Your task to perform on an android device: Do I have any events this weekend? Image 0: 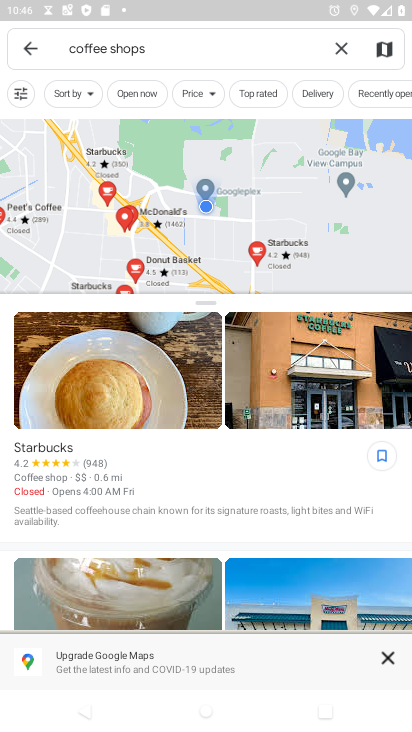
Step 0: press back button
Your task to perform on an android device: Do I have any events this weekend? Image 1: 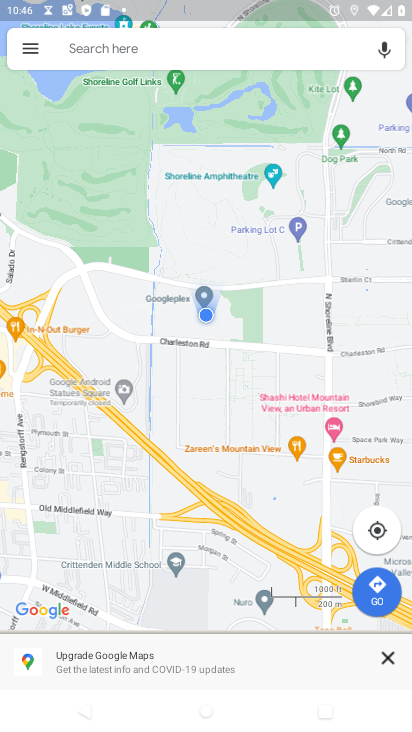
Step 1: press back button
Your task to perform on an android device: Do I have any events this weekend? Image 2: 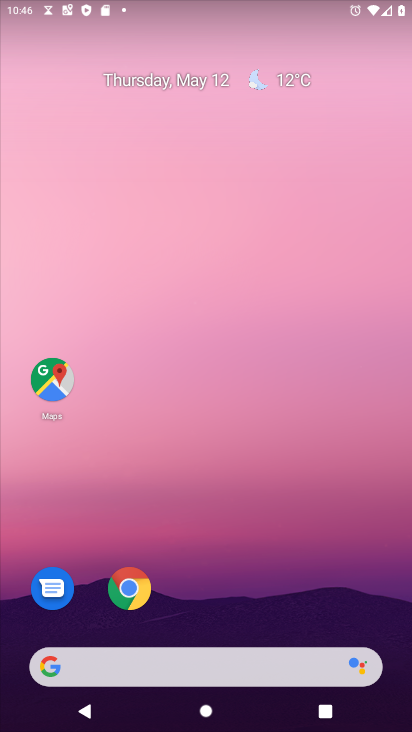
Step 2: drag from (259, 610) to (275, 61)
Your task to perform on an android device: Do I have any events this weekend? Image 3: 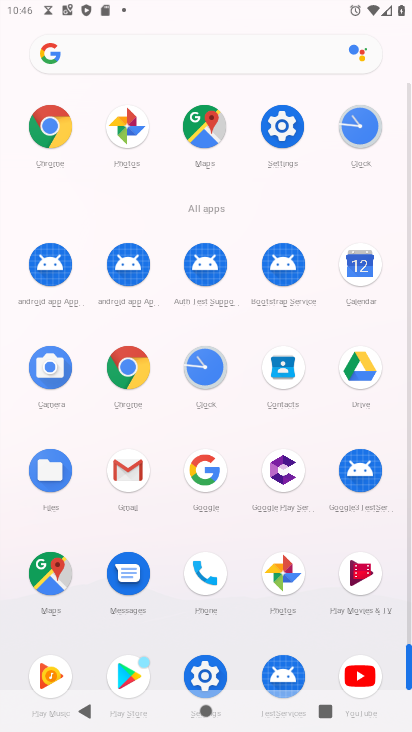
Step 3: click (361, 265)
Your task to perform on an android device: Do I have any events this weekend? Image 4: 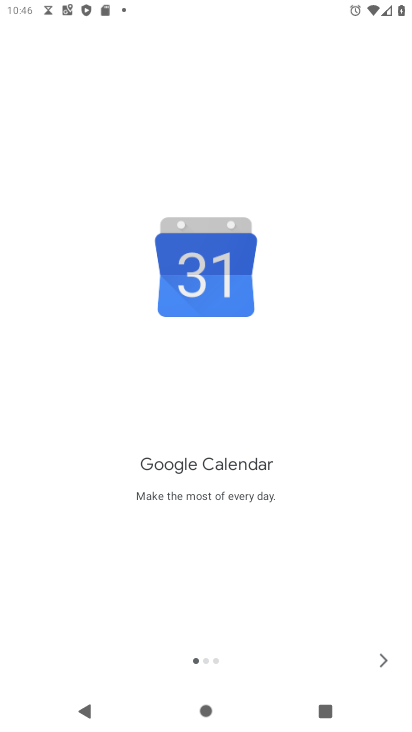
Step 4: click (385, 658)
Your task to perform on an android device: Do I have any events this weekend? Image 5: 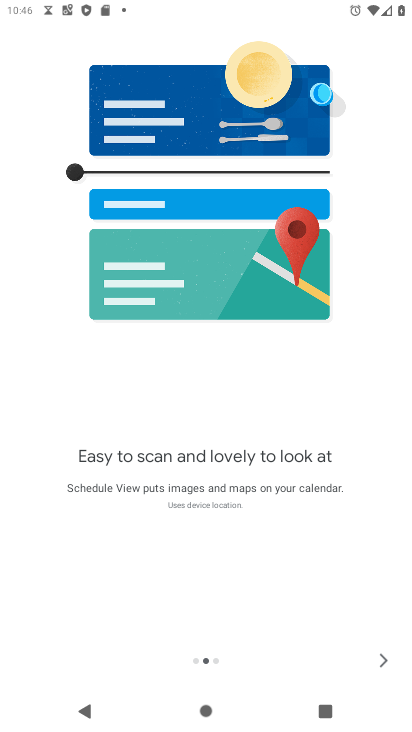
Step 5: click (385, 658)
Your task to perform on an android device: Do I have any events this weekend? Image 6: 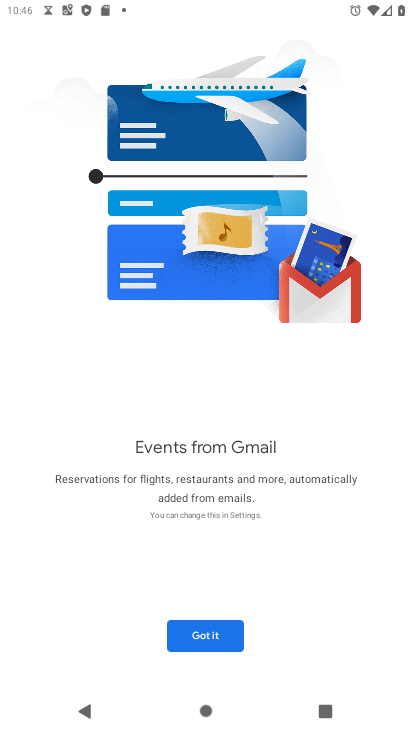
Step 6: click (202, 635)
Your task to perform on an android device: Do I have any events this weekend? Image 7: 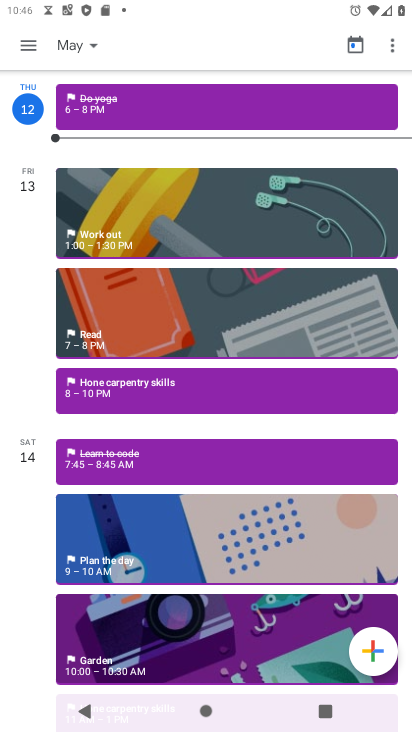
Step 7: drag from (171, 496) to (234, 314)
Your task to perform on an android device: Do I have any events this weekend? Image 8: 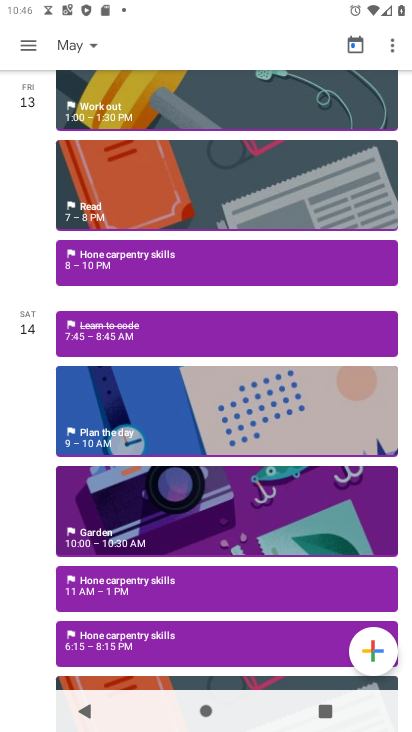
Step 8: click (234, 315)
Your task to perform on an android device: Do I have any events this weekend? Image 9: 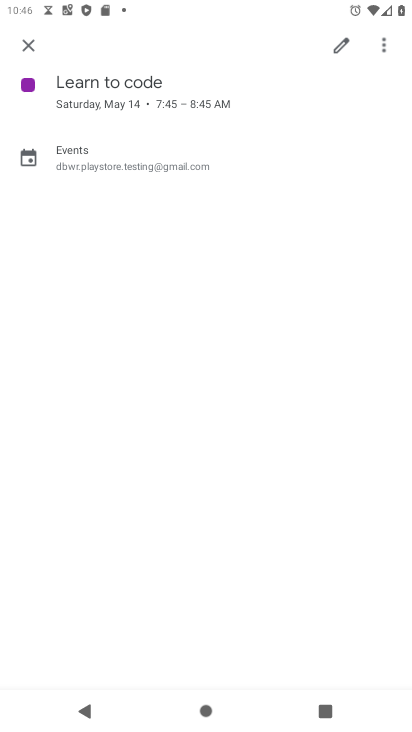
Step 9: task complete